Your task to perform on an android device: Open maps Image 0: 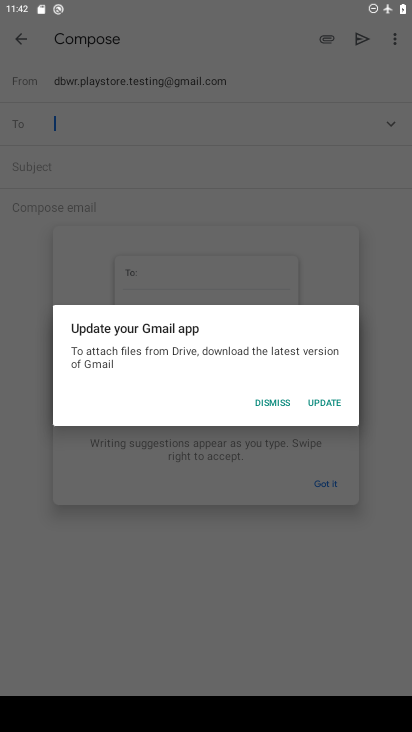
Step 0: press home button
Your task to perform on an android device: Open maps Image 1: 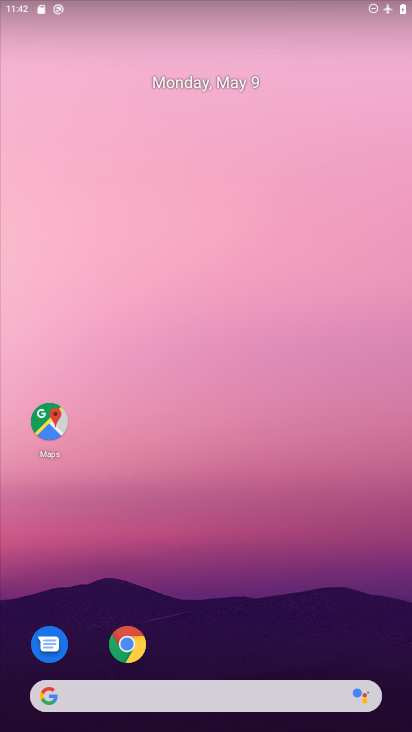
Step 1: click (30, 417)
Your task to perform on an android device: Open maps Image 2: 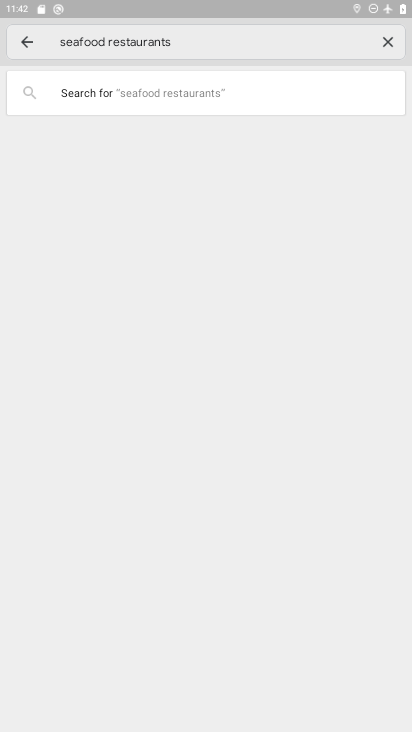
Step 2: task complete